Your task to perform on an android device: turn off notifications settings in the gmail app Image 0: 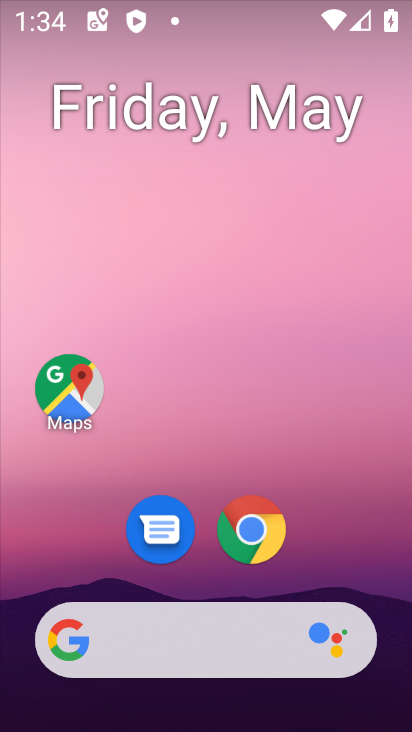
Step 0: drag from (285, 579) to (287, 122)
Your task to perform on an android device: turn off notifications settings in the gmail app Image 1: 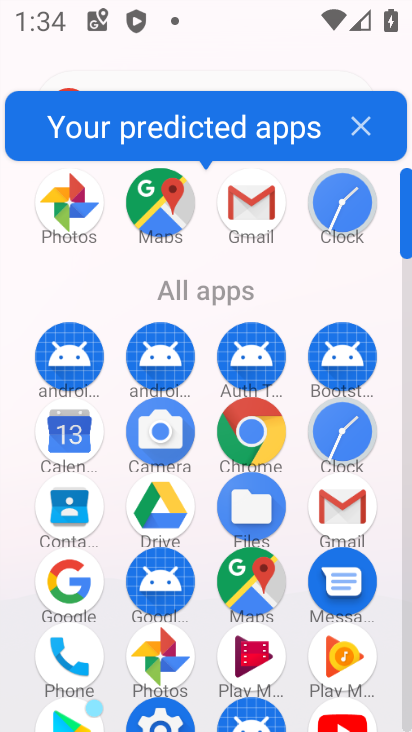
Step 1: click (250, 198)
Your task to perform on an android device: turn off notifications settings in the gmail app Image 2: 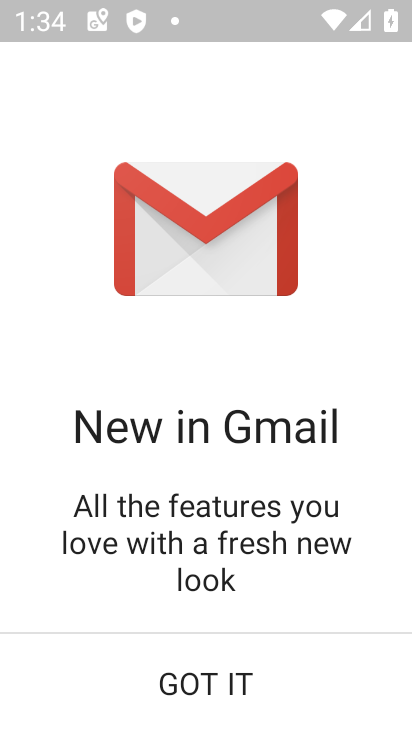
Step 2: click (177, 669)
Your task to perform on an android device: turn off notifications settings in the gmail app Image 3: 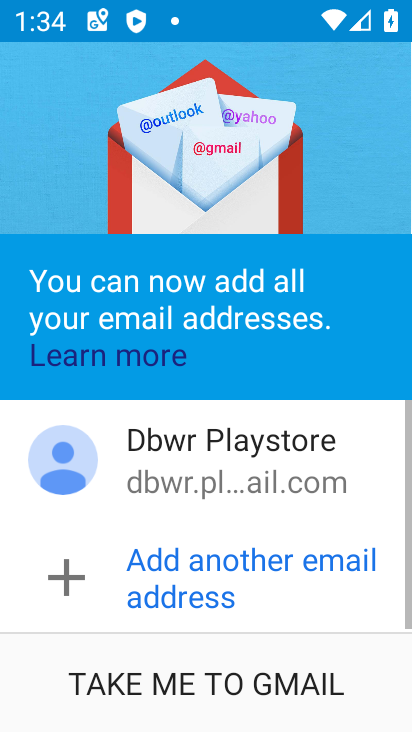
Step 3: click (198, 680)
Your task to perform on an android device: turn off notifications settings in the gmail app Image 4: 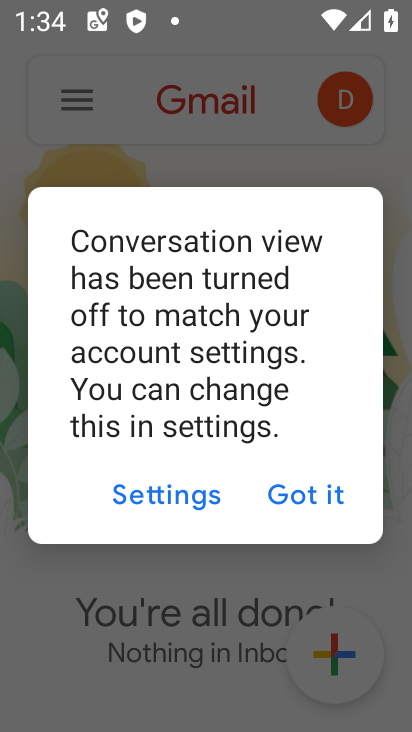
Step 4: click (307, 491)
Your task to perform on an android device: turn off notifications settings in the gmail app Image 5: 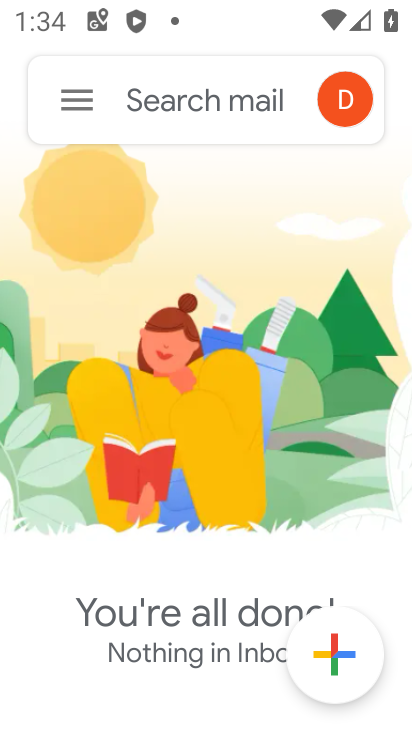
Step 5: click (91, 117)
Your task to perform on an android device: turn off notifications settings in the gmail app Image 6: 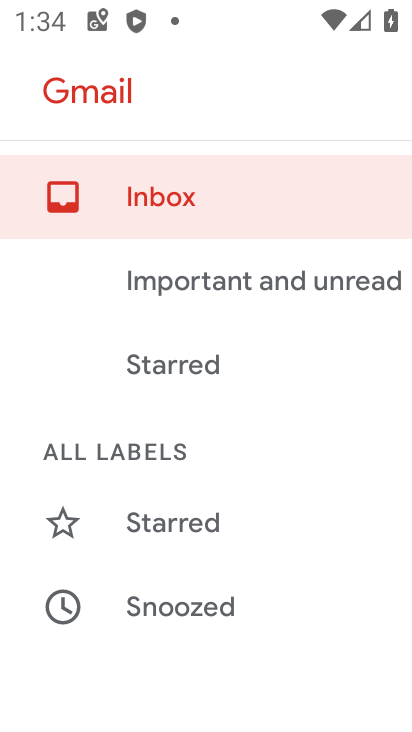
Step 6: drag from (225, 405) to (225, 217)
Your task to perform on an android device: turn off notifications settings in the gmail app Image 7: 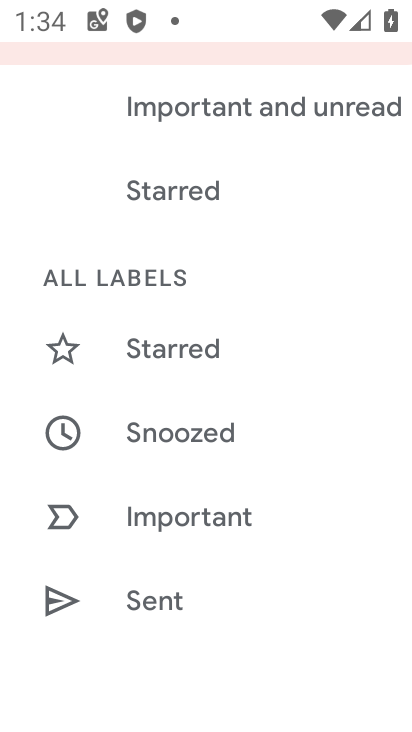
Step 7: drag from (211, 575) to (260, 140)
Your task to perform on an android device: turn off notifications settings in the gmail app Image 8: 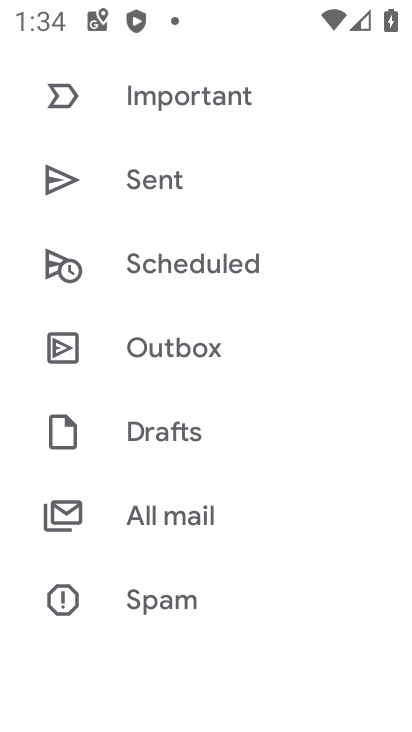
Step 8: drag from (191, 566) to (171, 194)
Your task to perform on an android device: turn off notifications settings in the gmail app Image 9: 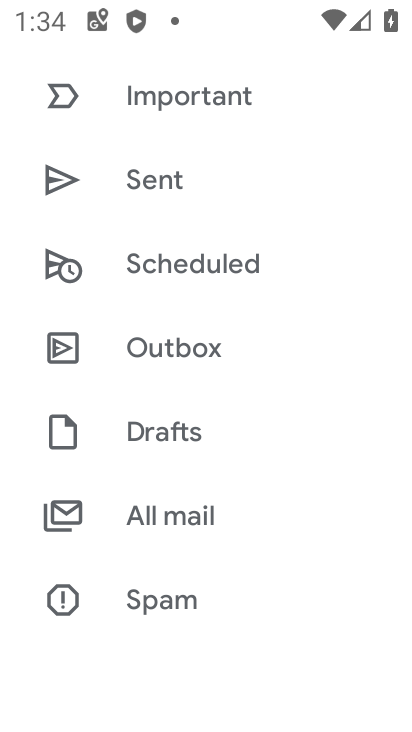
Step 9: drag from (279, 452) to (321, 215)
Your task to perform on an android device: turn off notifications settings in the gmail app Image 10: 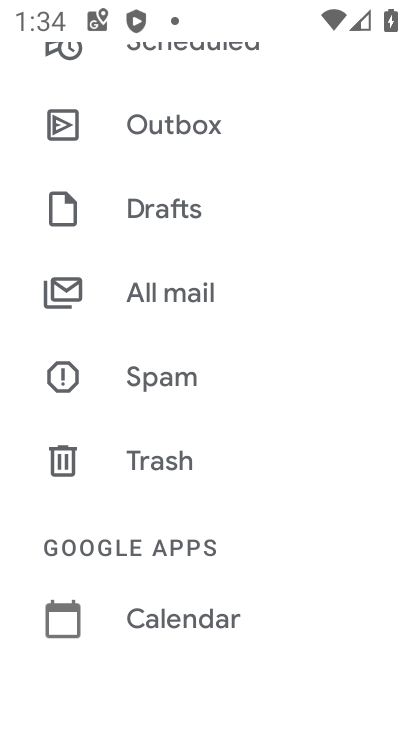
Step 10: click (140, 201)
Your task to perform on an android device: turn off notifications settings in the gmail app Image 11: 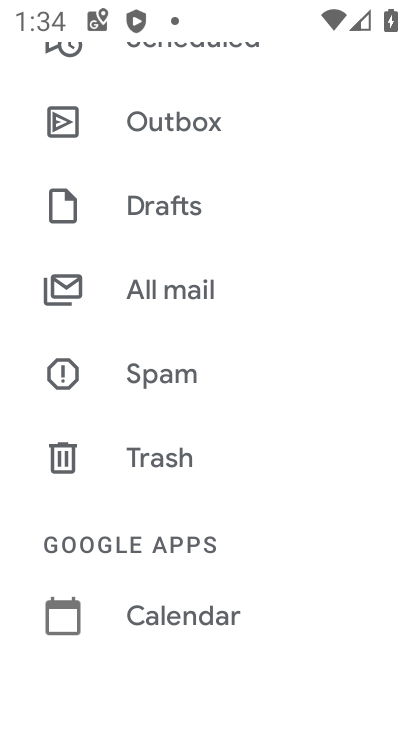
Step 11: drag from (247, 509) to (253, 148)
Your task to perform on an android device: turn off notifications settings in the gmail app Image 12: 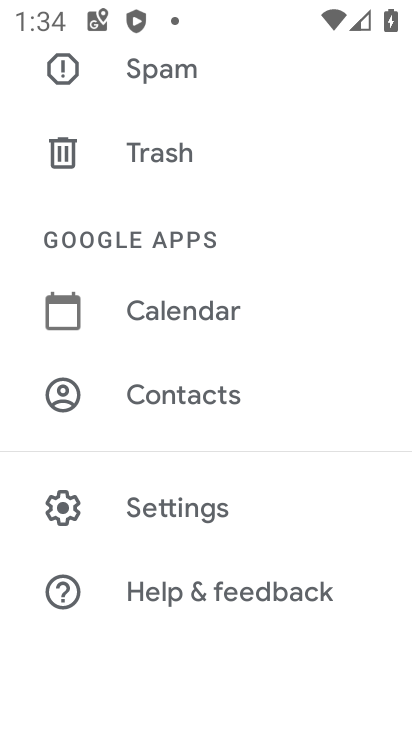
Step 12: click (189, 516)
Your task to perform on an android device: turn off notifications settings in the gmail app Image 13: 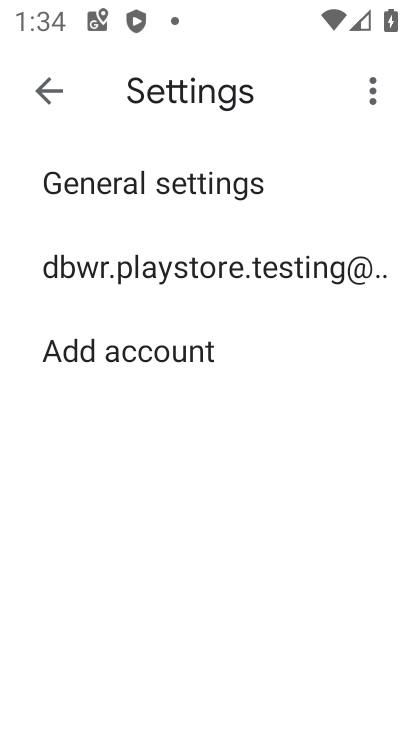
Step 13: click (181, 271)
Your task to perform on an android device: turn off notifications settings in the gmail app Image 14: 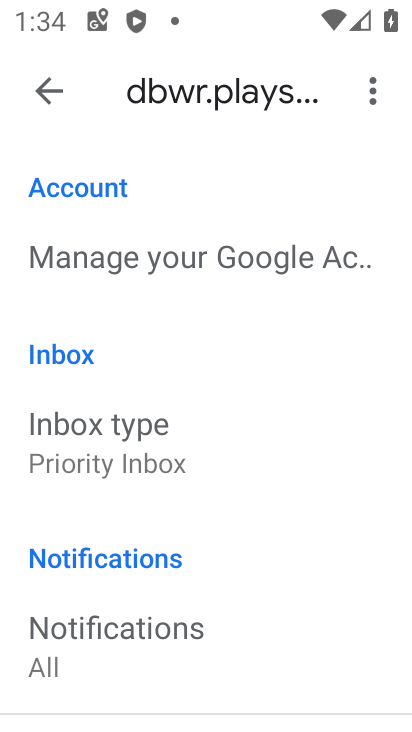
Step 14: drag from (148, 622) to (176, 294)
Your task to perform on an android device: turn off notifications settings in the gmail app Image 15: 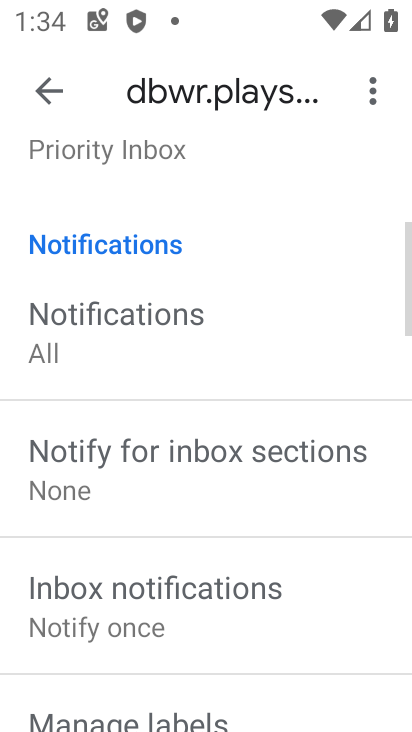
Step 15: click (114, 415)
Your task to perform on an android device: turn off notifications settings in the gmail app Image 16: 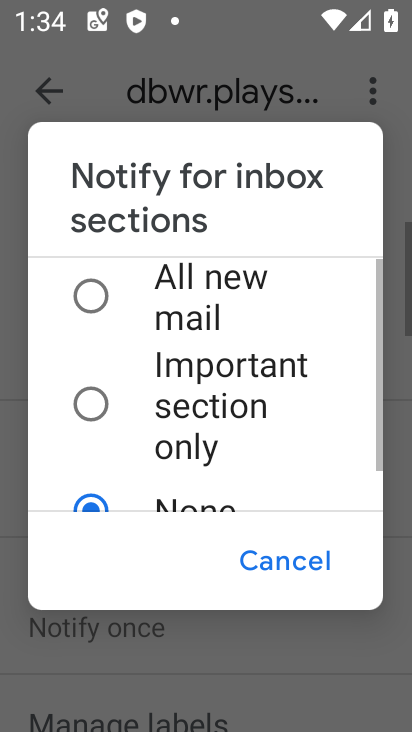
Step 16: click (280, 561)
Your task to perform on an android device: turn off notifications settings in the gmail app Image 17: 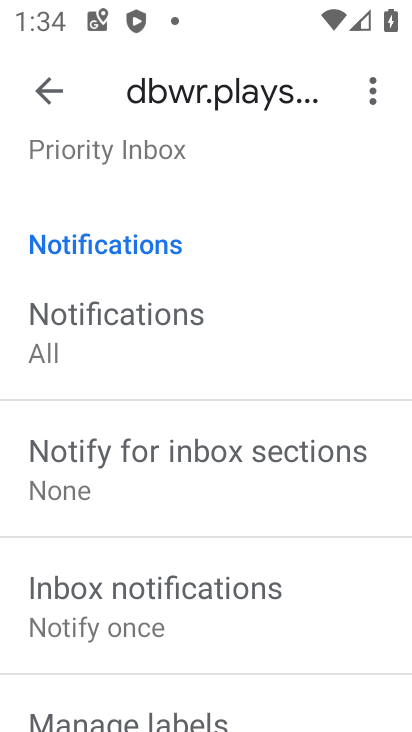
Step 17: click (144, 343)
Your task to perform on an android device: turn off notifications settings in the gmail app Image 18: 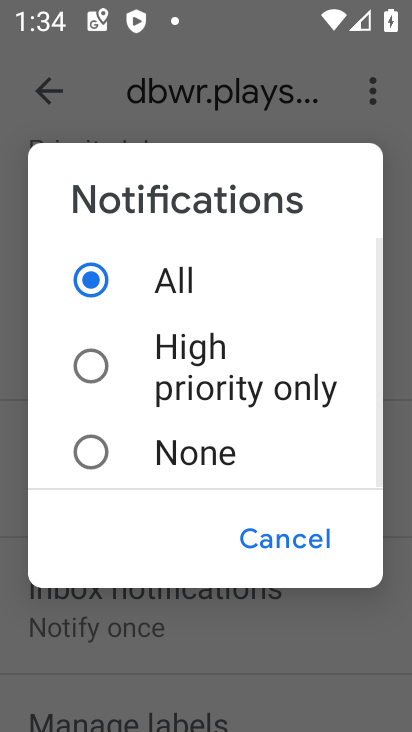
Step 18: click (91, 450)
Your task to perform on an android device: turn off notifications settings in the gmail app Image 19: 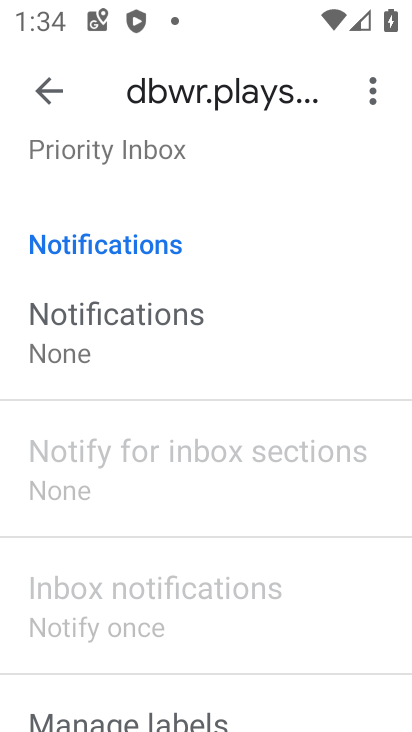
Step 19: task complete